Your task to perform on an android device: Open Youtube and go to the subscriptions tab Image 0: 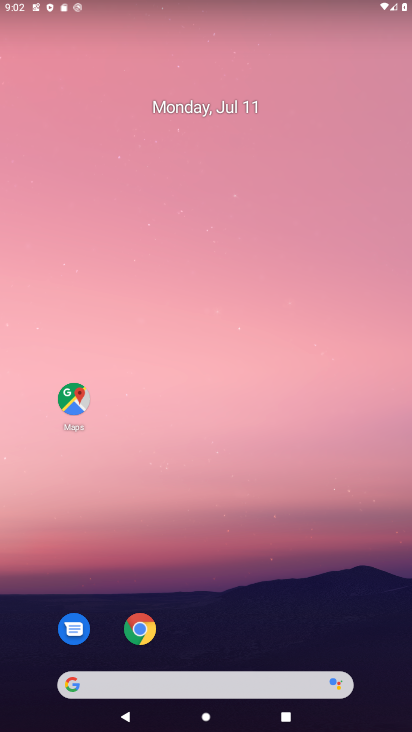
Step 0: task impossible